Your task to perform on an android device: Turn off the flashlight Image 0: 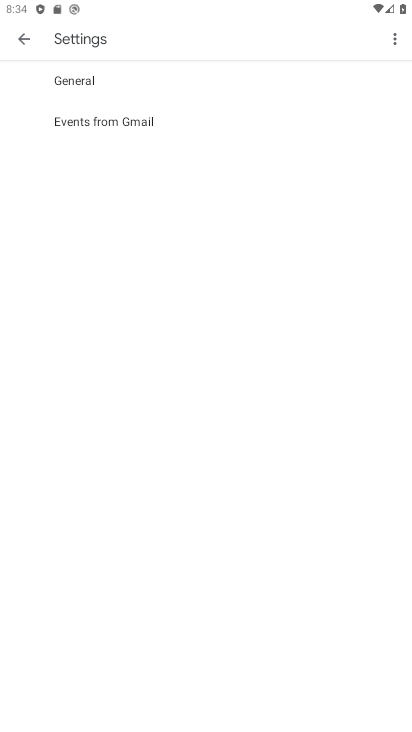
Step 0: press home button
Your task to perform on an android device: Turn off the flashlight Image 1: 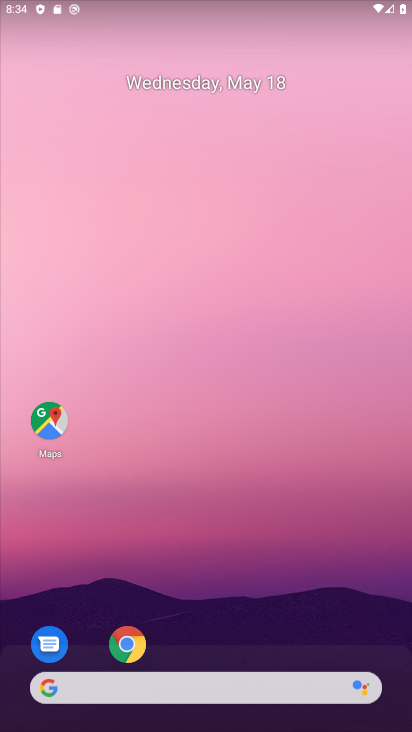
Step 1: task complete